Your task to perform on an android device: open chrome privacy settings Image 0: 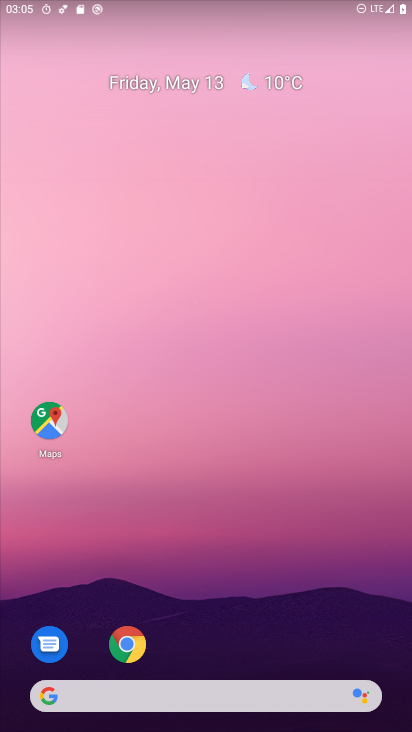
Step 0: drag from (229, 710) to (210, 5)
Your task to perform on an android device: open chrome privacy settings Image 1: 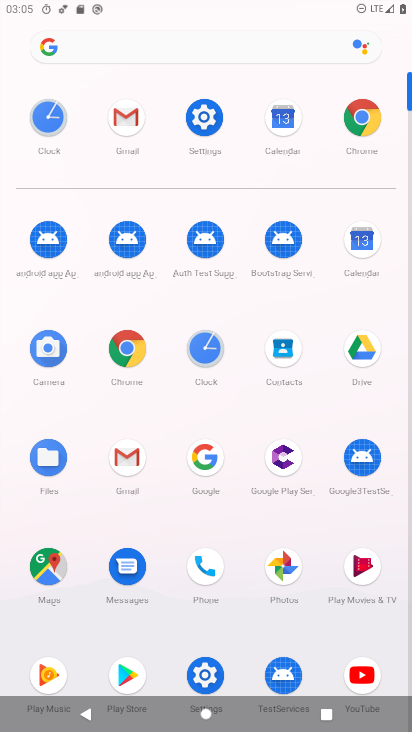
Step 1: click (209, 128)
Your task to perform on an android device: open chrome privacy settings Image 2: 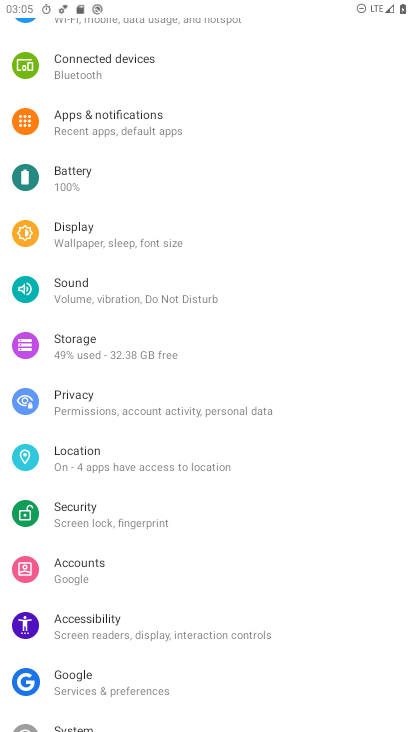
Step 2: press home button
Your task to perform on an android device: open chrome privacy settings Image 3: 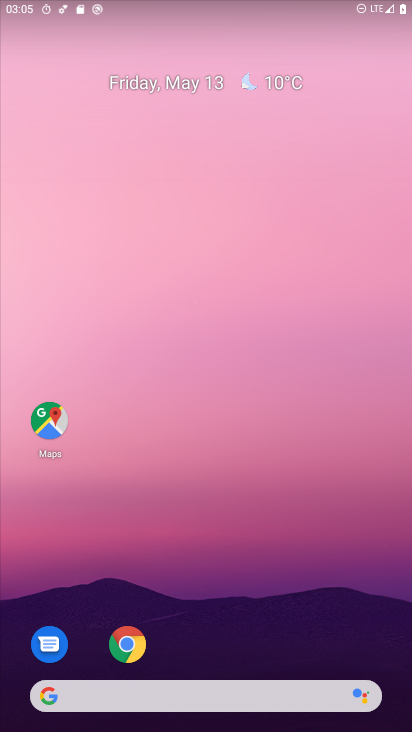
Step 3: drag from (279, 689) to (254, 92)
Your task to perform on an android device: open chrome privacy settings Image 4: 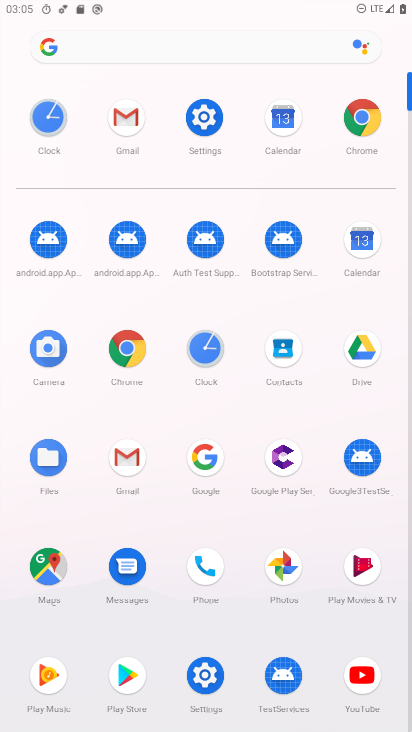
Step 4: click (133, 354)
Your task to perform on an android device: open chrome privacy settings Image 5: 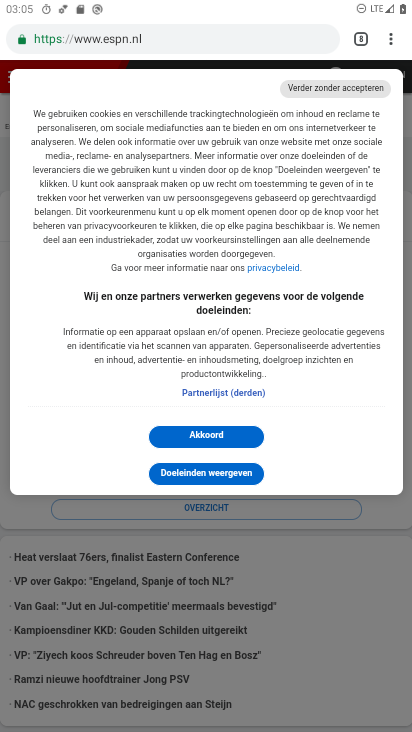
Step 5: drag from (391, 34) to (276, 475)
Your task to perform on an android device: open chrome privacy settings Image 6: 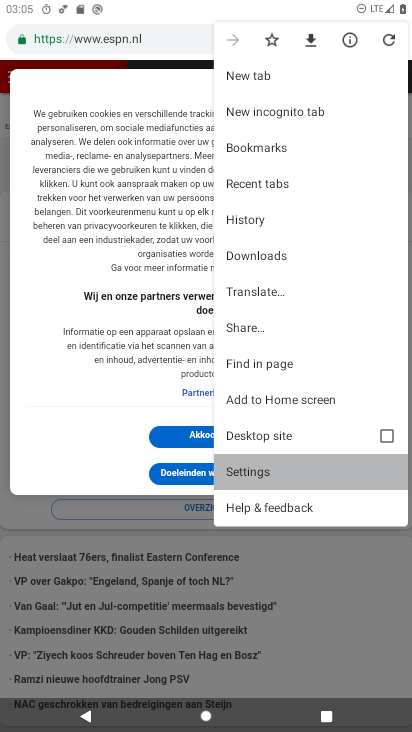
Step 6: click (276, 474)
Your task to perform on an android device: open chrome privacy settings Image 7: 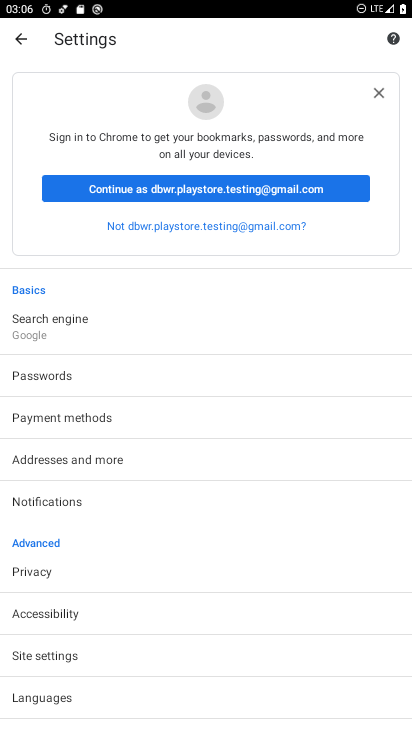
Step 7: task complete